Your task to perform on an android device: Open Wikipedia Image 0: 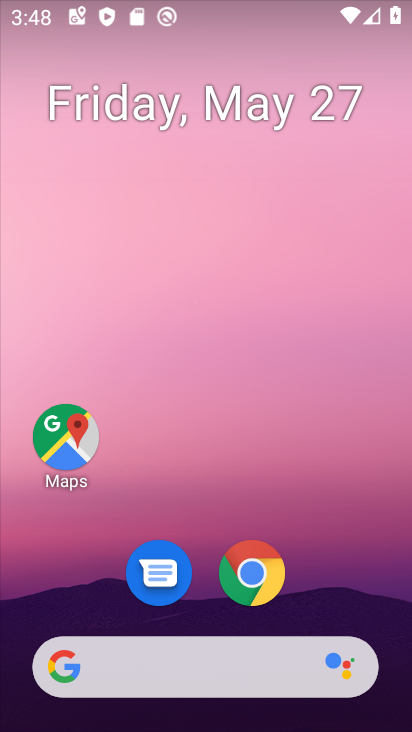
Step 0: drag from (371, 585) to (377, 157)
Your task to perform on an android device: Open Wikipedia Image 1: 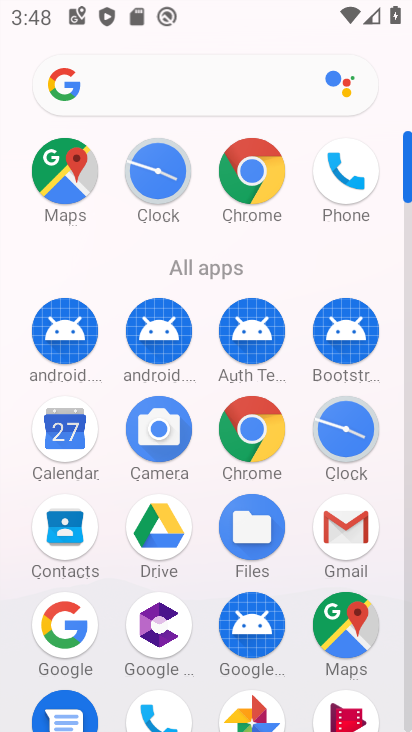
Step 1: click (267, 449)
Your task to perform on an android device: Open Wikipedia Image 2: 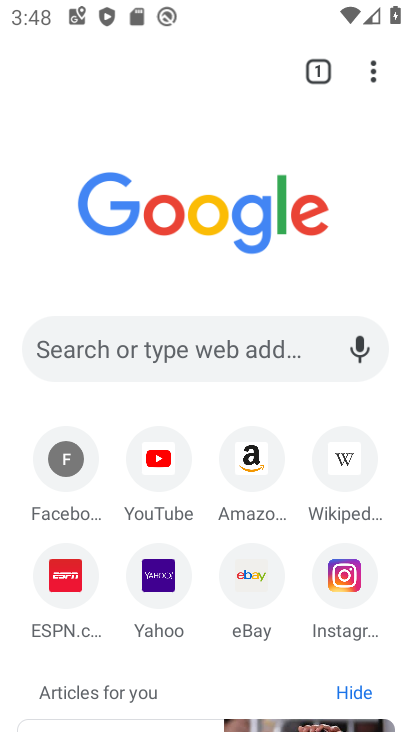
Step 2: click (339, 455)
Your task to perform on an android device: Open Wikipedia Image 3: 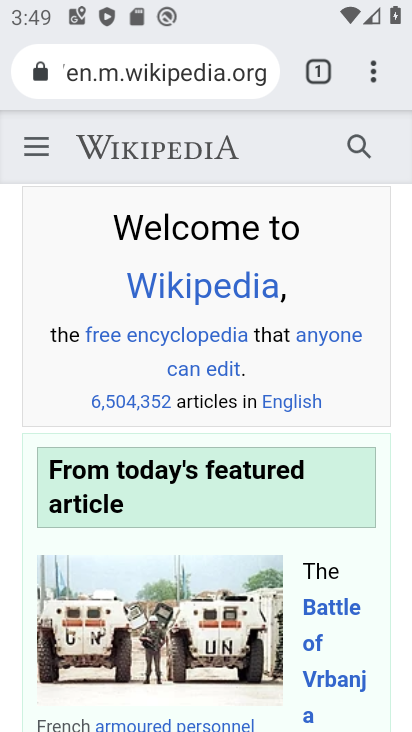
Step 3: task complete